Your task to perform on an android device: check android version Image 0: 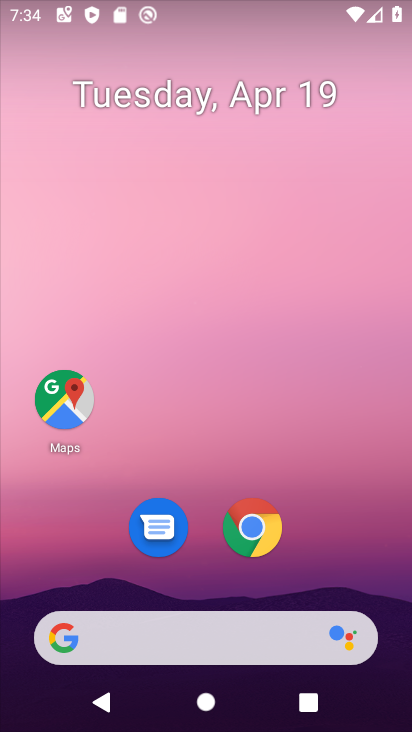
Step 0: drag from (364, 567) to (326, 154)
Your task to perform on an android device: check android version Image 1: 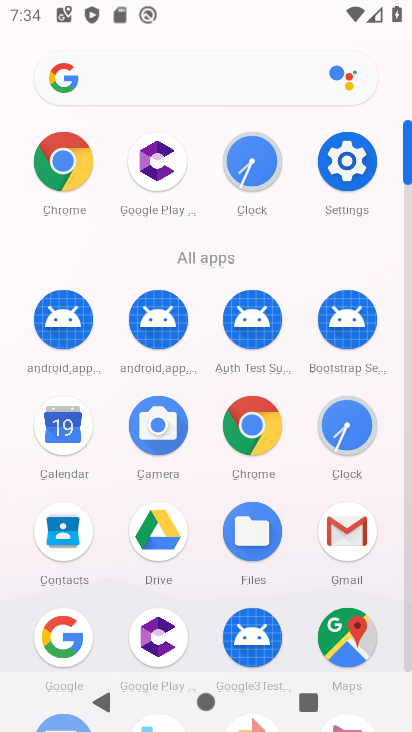
Step 1: click (351, 170)
Your task to perform on an android device: check android version Image 2: 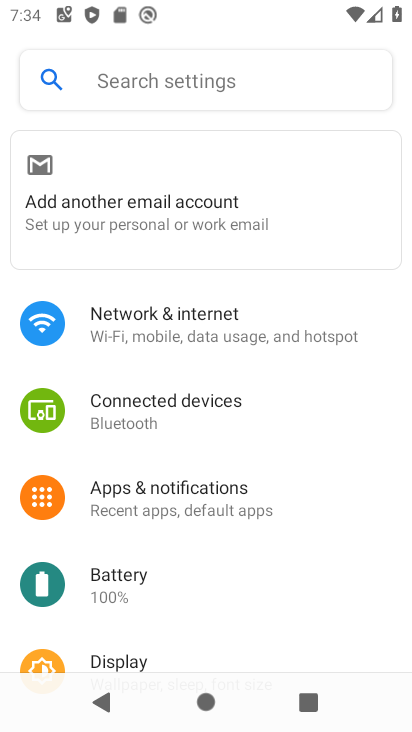
Step 2: drag from (316, 624) to (319, 242)
Your task to perform on an android device: check android version Image 3: 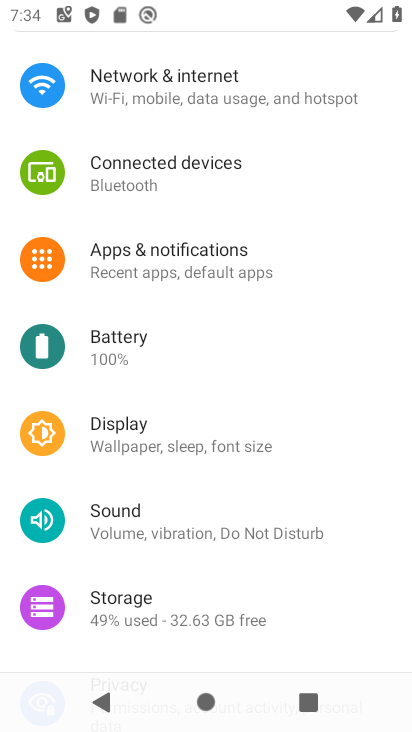
Step 3: drag from (319, 597) to (300, 233)
Your task to perform on an android device: check android version Image 4: 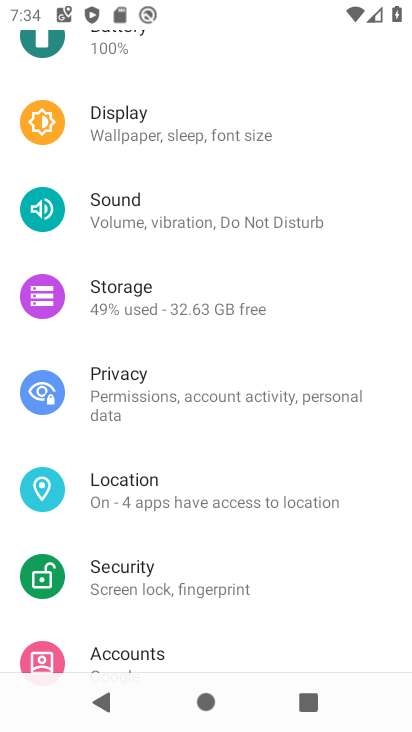
Step 4: drag from (312, 538) to (323, 239)
Your task to perform on an android device: check android version Image 5: 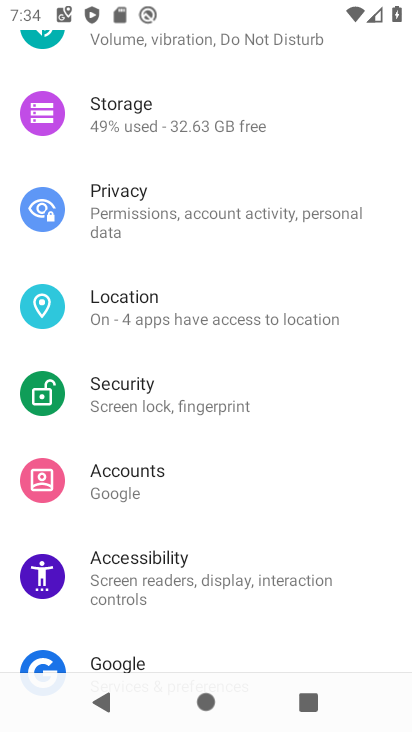
Step 5: drag from (322, 607) to (322, 230)
Your task to perform on an android device: check android version Image 6: 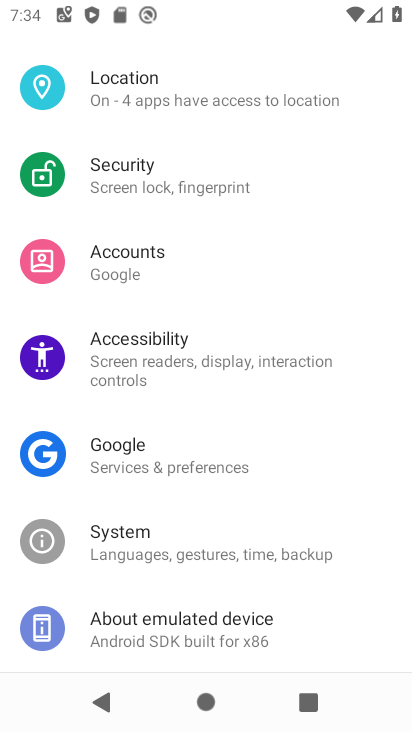
Step 6: click (237, 630)
Your task to perform on an android device: check android version Image 7: 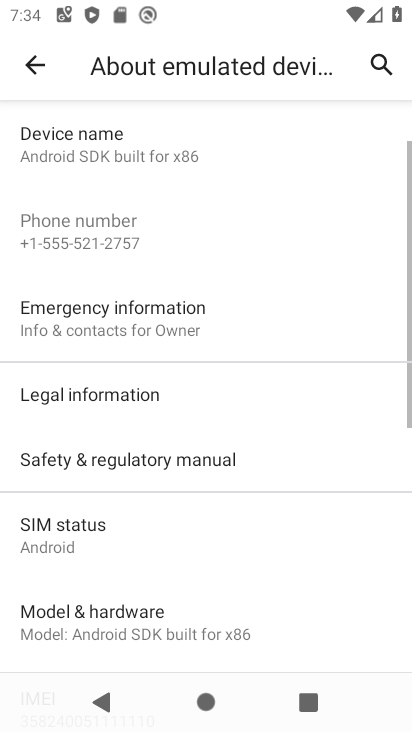
Step 7: drag from (346, 529) to (354, 250)
Your task to perform on an android device: check android version Image 8: 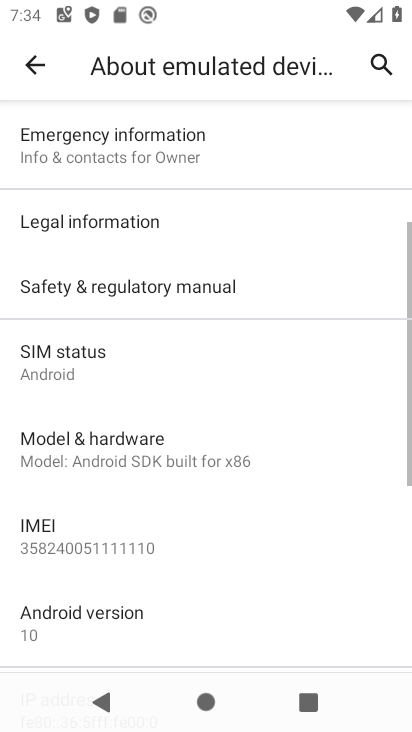
Step 8: click (111, 617)
Your task to perform on an android device: check android version Image 9: 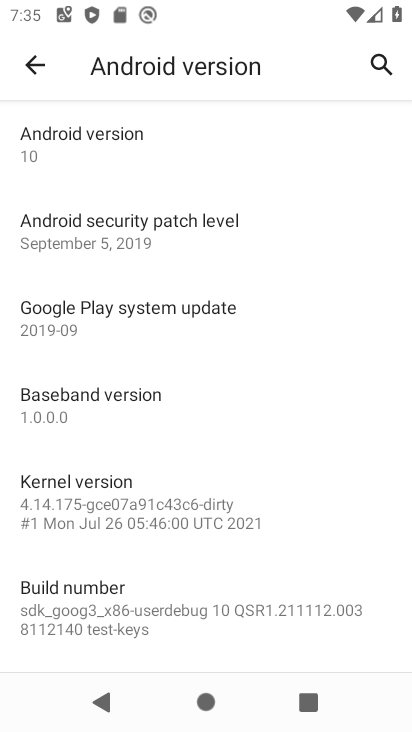
Step 9: task complete